Your task to perform on an android device: Open sound settings Image 0: 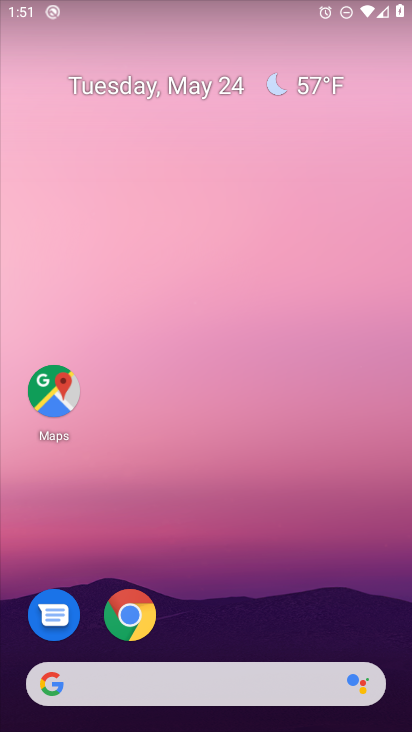
Step 0: drag from (168, 447) to (168, 278)
Your task to perform on an android device: Open sound settings Image 1: 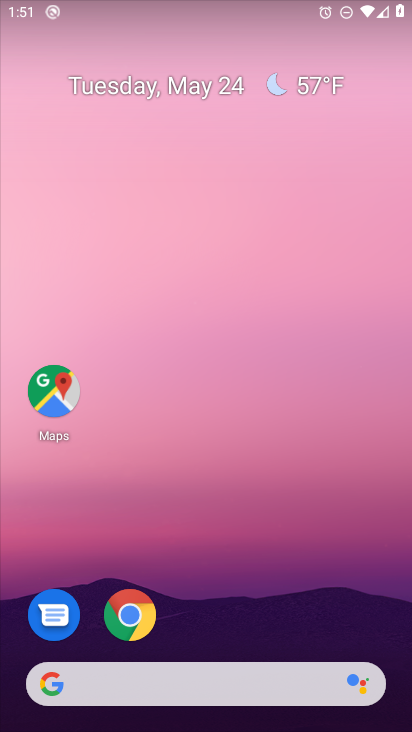
Step 1: drag from (231, 644) to (225, 272)
Your task to perform on an android device: Open sound settings Image 2: 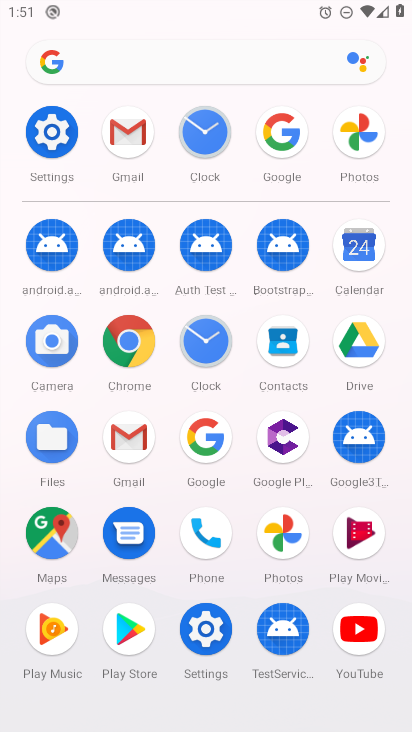
Step 2: click (58, 137)
Your task to perform on an android device: Open sound settings Image 3: 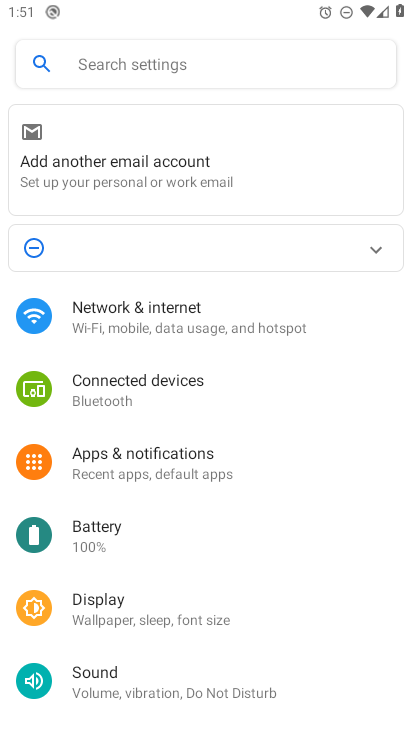
Step 3: click (122, 679)
Your task to perform on an android device: Open sound settings Image 4: 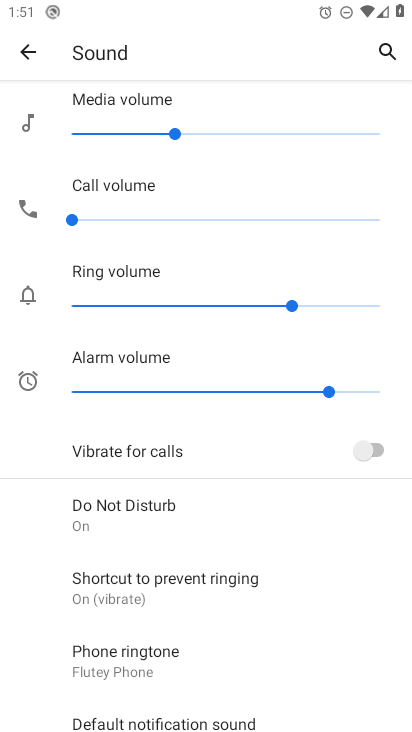
Step 4: task complete